Your task to perform on an android device: When is my next appointment? Image 0: 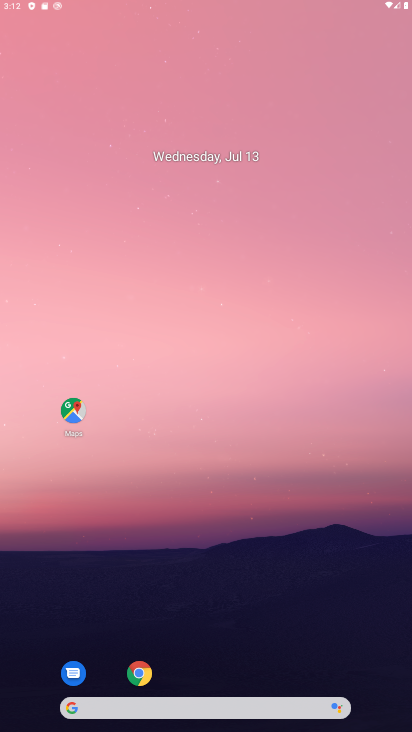
Step 0: drag from (226, 655) to (315, 197)
Your task to perform on an android device: When is my next appointment? Image 1: 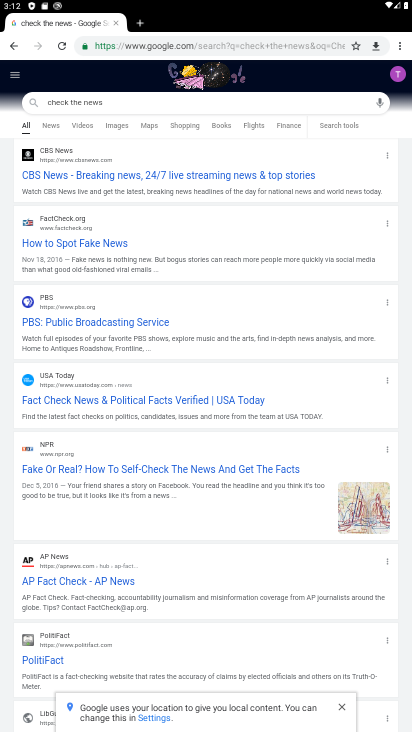
Step 1: press home button
Your task to perform on an android device: When is my next appointment? Image 2: 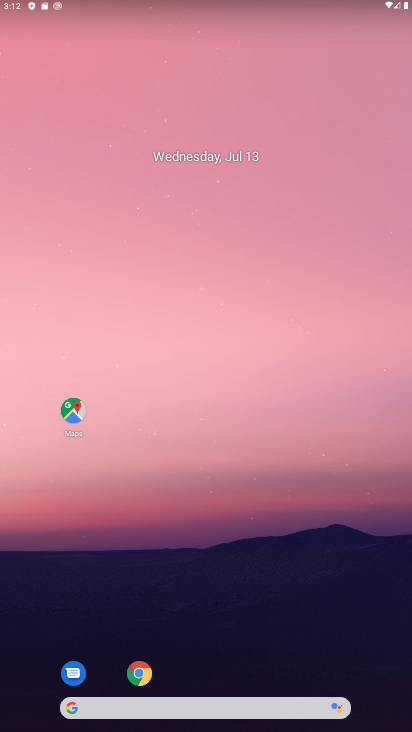
Step 2: drag from (251, 640) to (298, 48)
Your task to perform on an android device: When is my next appointment? Image 3: 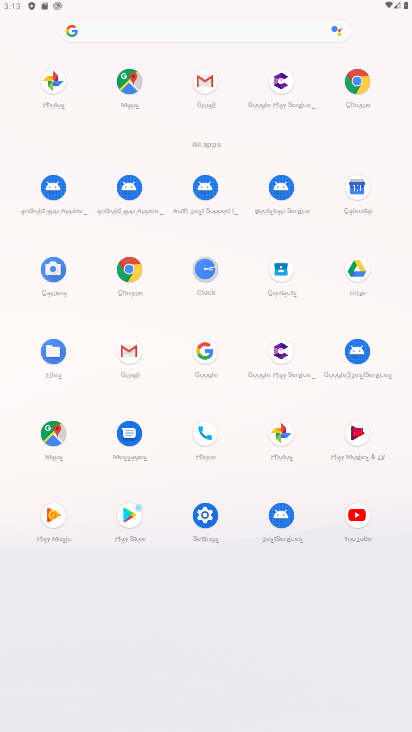
Step 3: click (348, 184)
Your task to perform on an android device: When is my next appointment? Image 4: 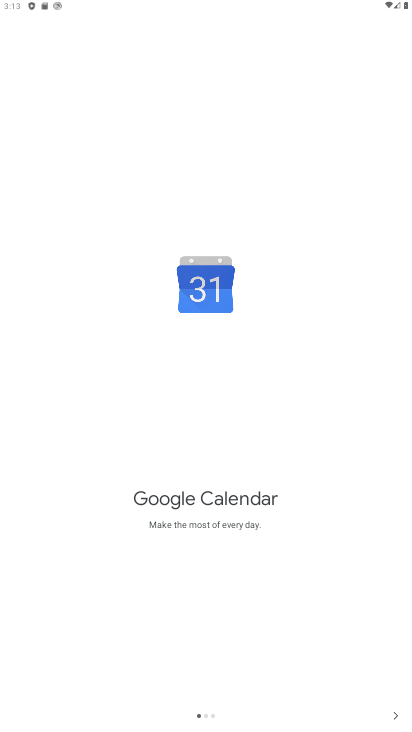
Step 4: click (401, 709)
Your task to perform on an android device: When is my next appointment? Image 5: 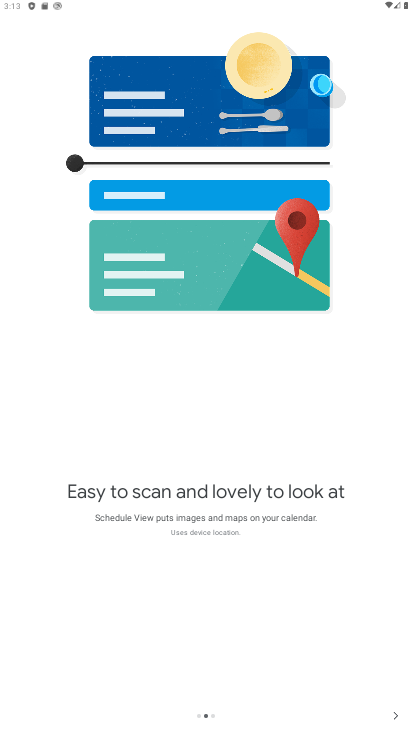
Step 5: click (400, 709)
Your task to perform on an android device: When is my next appointment? Image 6: 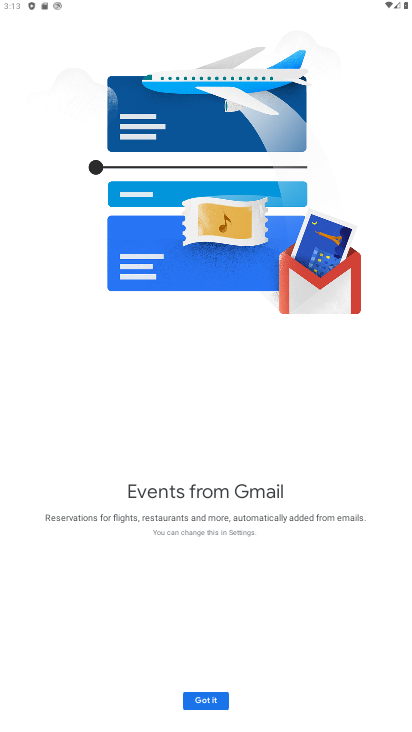
Step 6: click (192, 700)
Your task to perform on an android device: When is my next appointment? Image 7: 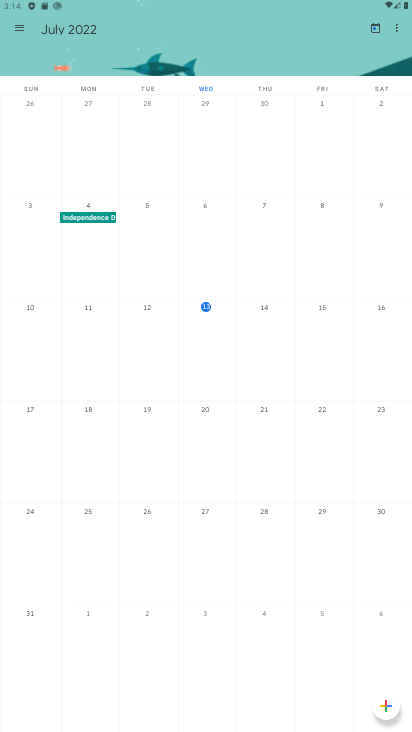
Step 7: click (207, 303)
Your task to perform on an android device: When is my next appointment? Image 8: 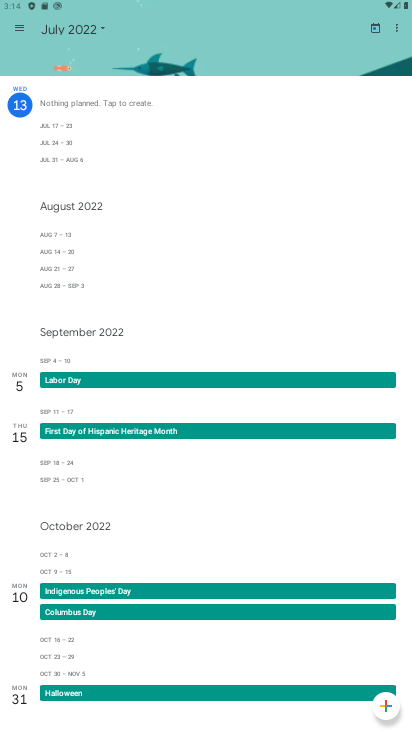
Step 8: task complete